Your task to perform on an android device: set the stopwatch Image 0: 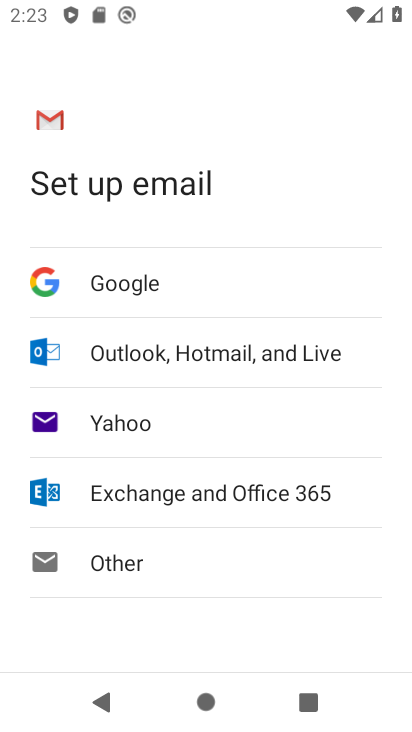
Step 0: press home button
Your task to perform on an android device: set the stopwatch Image 1: 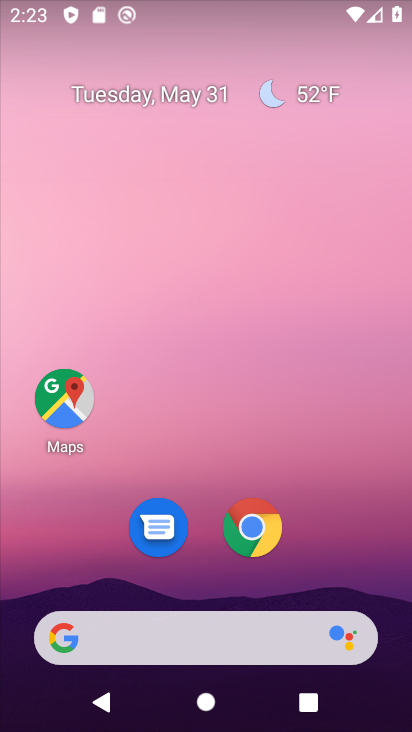
Step 1: drag from (139, 618) to (259, 128)
Your task to perform on an android device: set the stopwatch Image 2: 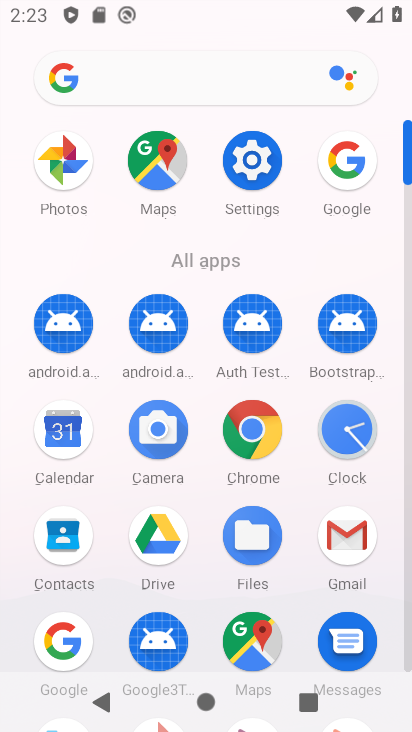
Step 2: click (349, 452)
Your task to perform on an android device: set the stopwatch Image 3: 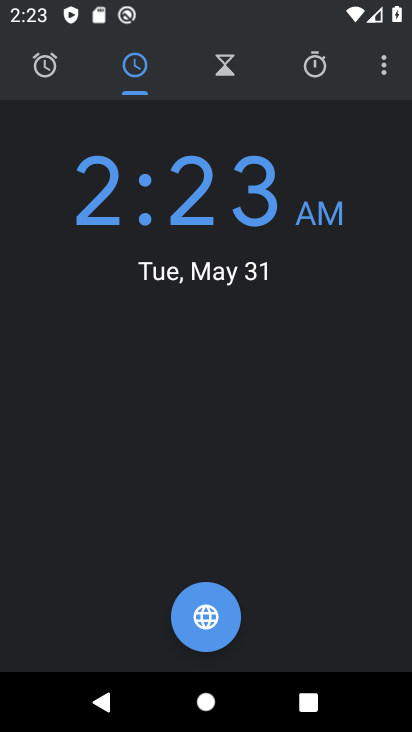
Step 3: click (319, 65)
Your task to perform on an android device: set the stopwatch Image 4: 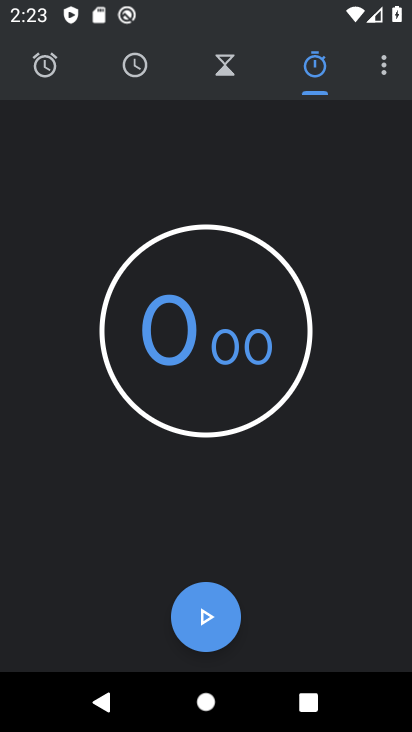
Step 4: click (235, 626)
Your task to perform on an android device: set the stopwatch Image 5: 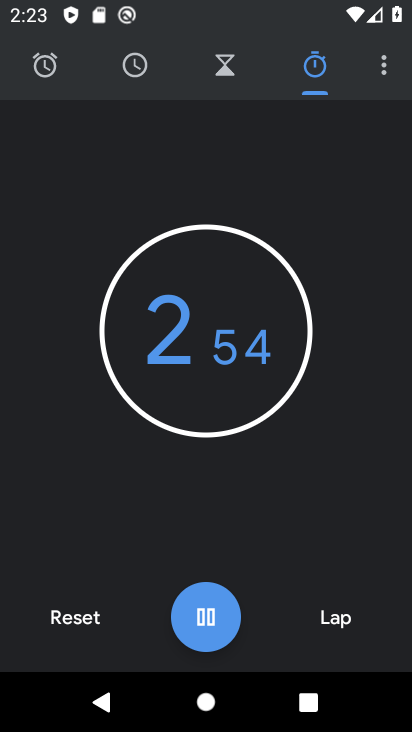
Step 5: task complete